Your task to perform on an android device: Add "dell xps" to the cart on bestbuy, then select checkout. Image 0: 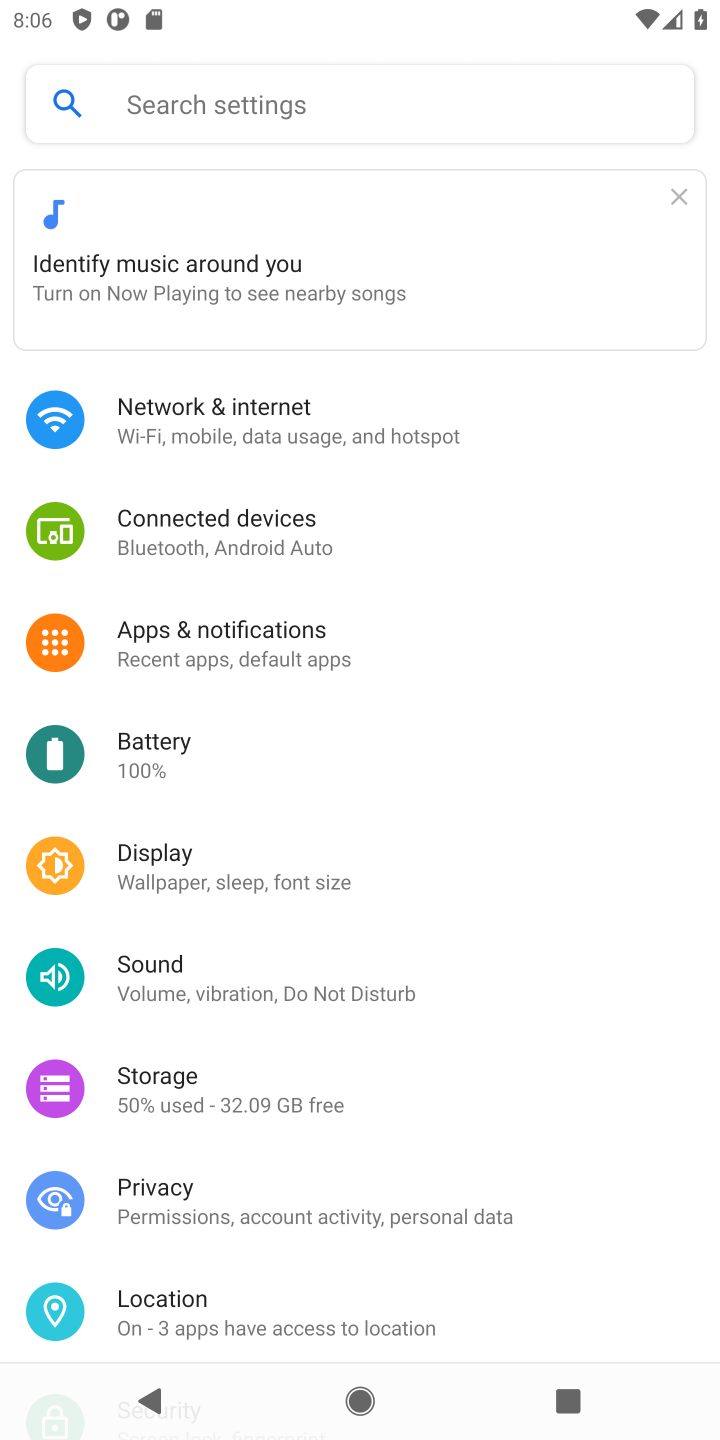
Step 0: press home button
Your task to perform on an android device: Add "dell xps" to the cart on bestbuy, then select checkout. Image 1: 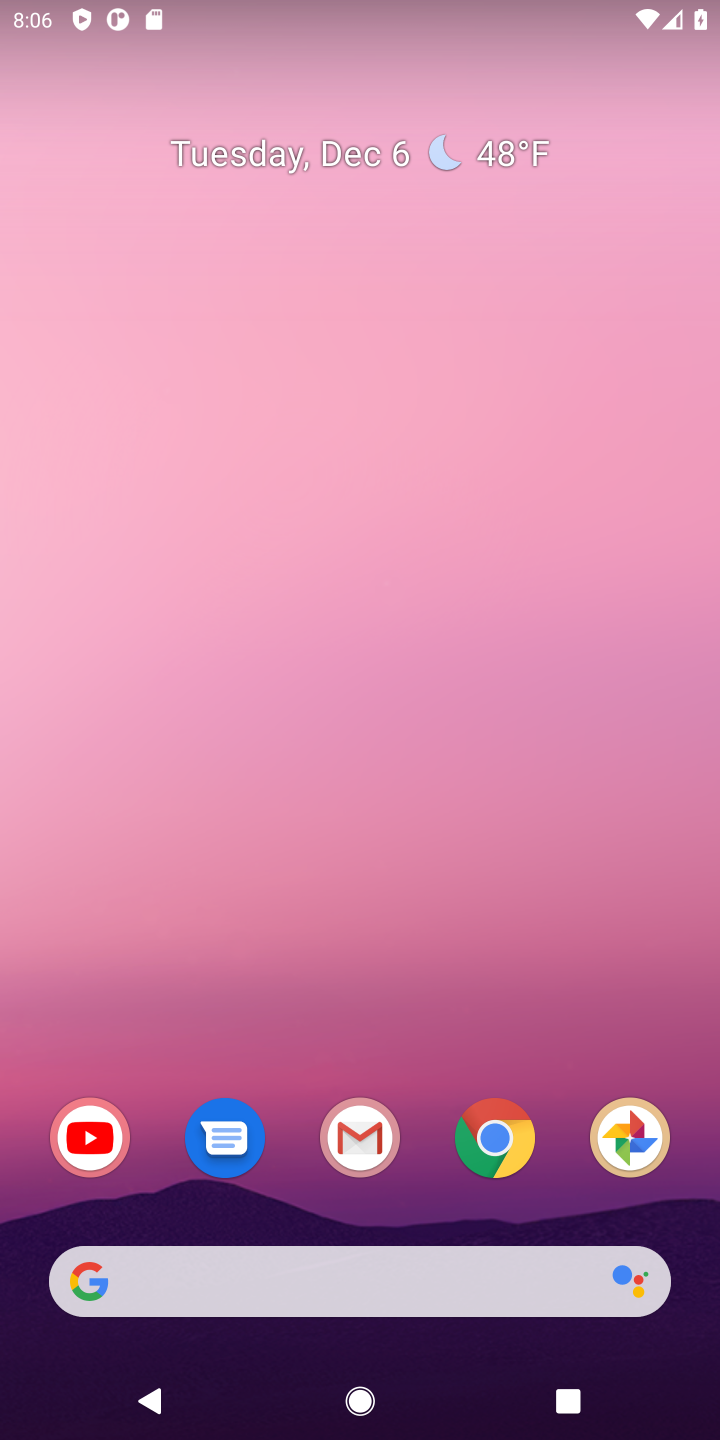
Step 1: click (485, 1149)
Your task to perform on an android device: Add "dell xps" to the cart on bestbuy, then select checkout. Image 2: 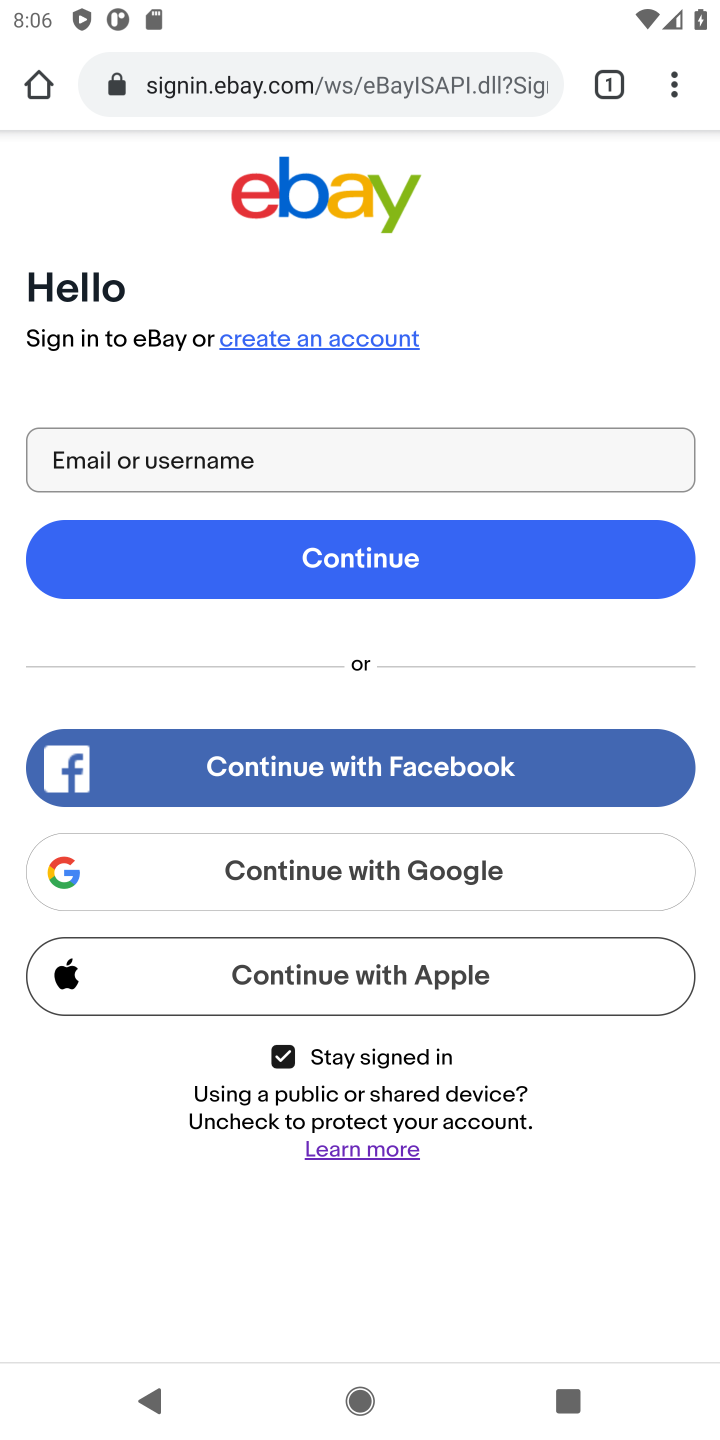
Step 2: click (280, 83)
Your task to perform on an android device: Add "dell xps" to the cart on bestbuy, then select checkout. Image 3: 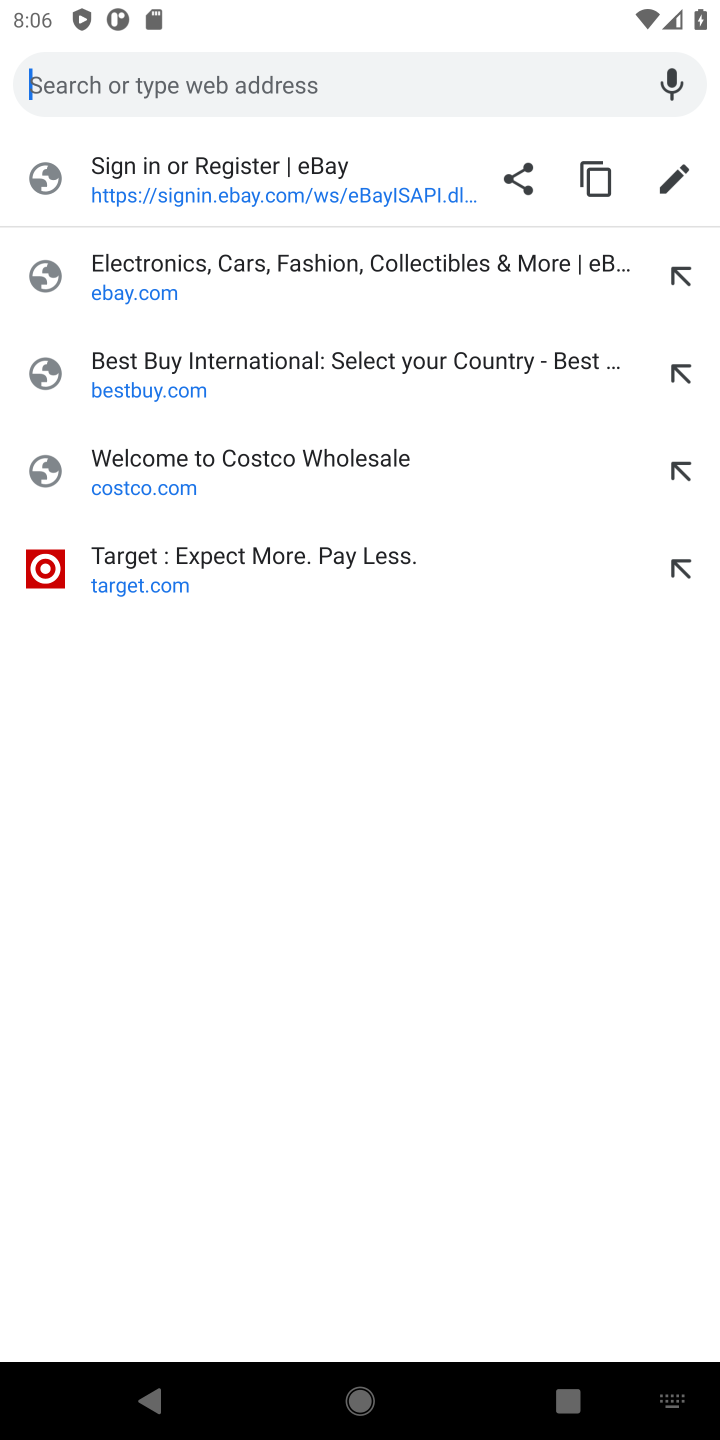
Step 3: click (110, 363)
Your task to perform on an android device: Add "dell xps" to the cart on bestbuy, then select checkout. Image 4: 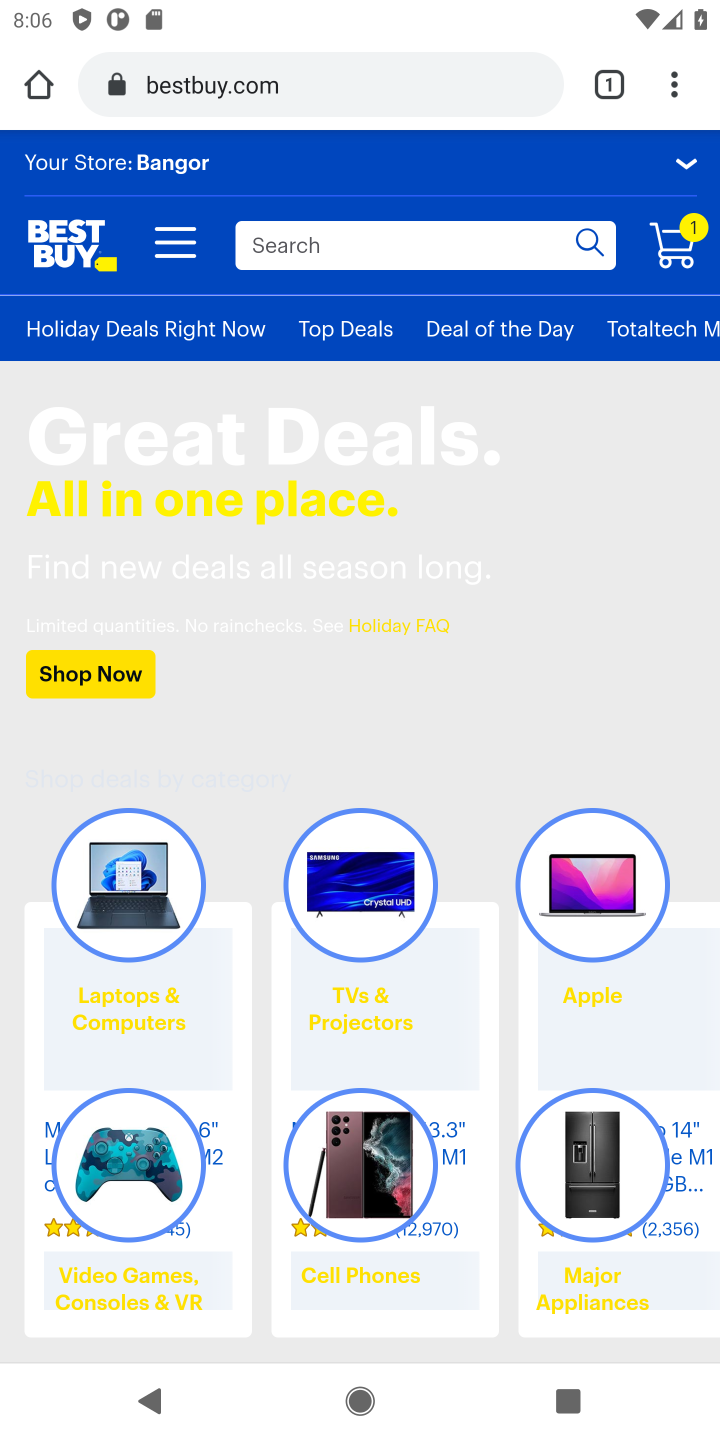
Step 4: click (305, 252)
Your task to perform on an android device: Add "dell xps" to the cart on bestbuy, then select checkout. Image 5: 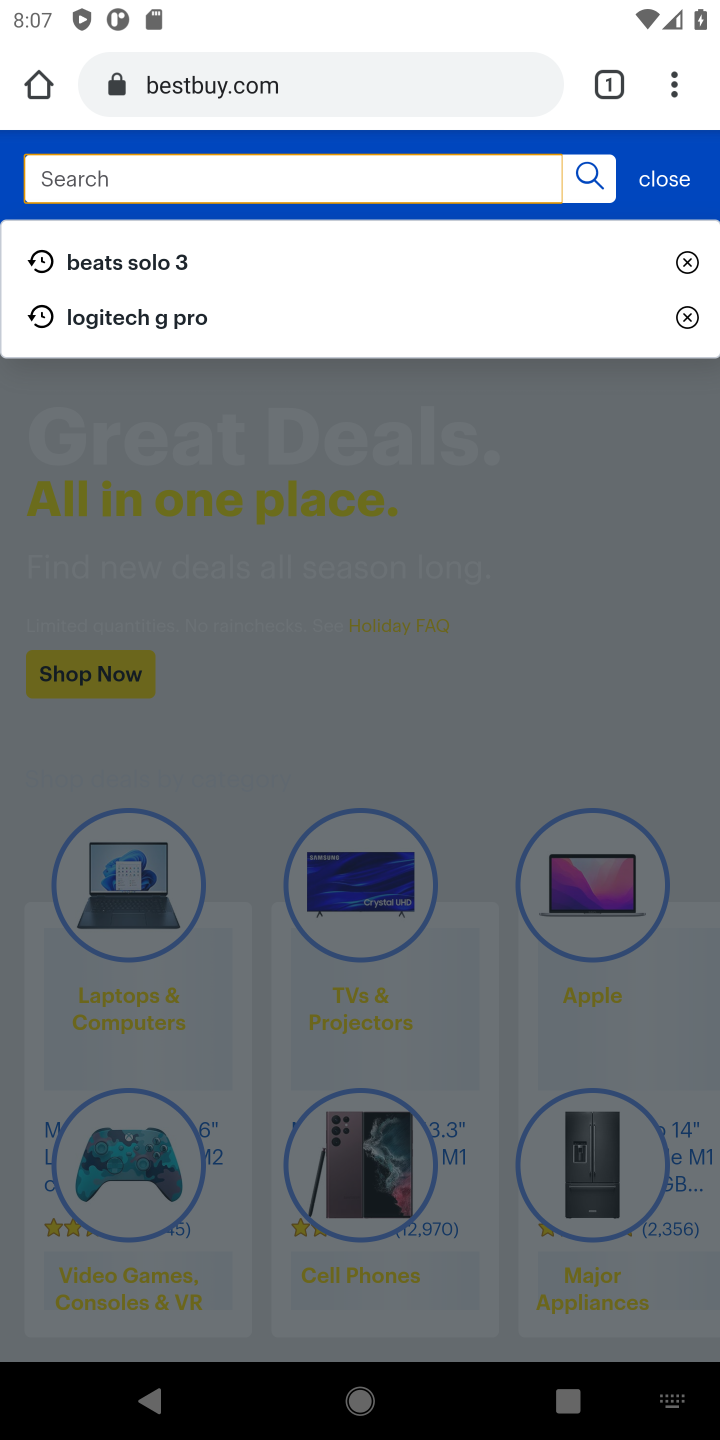
Step 5: type "dell xps"
Your task to perform on an android device: Add "dell xps" to the cart on bestbuy, then select checkout. Image 6: 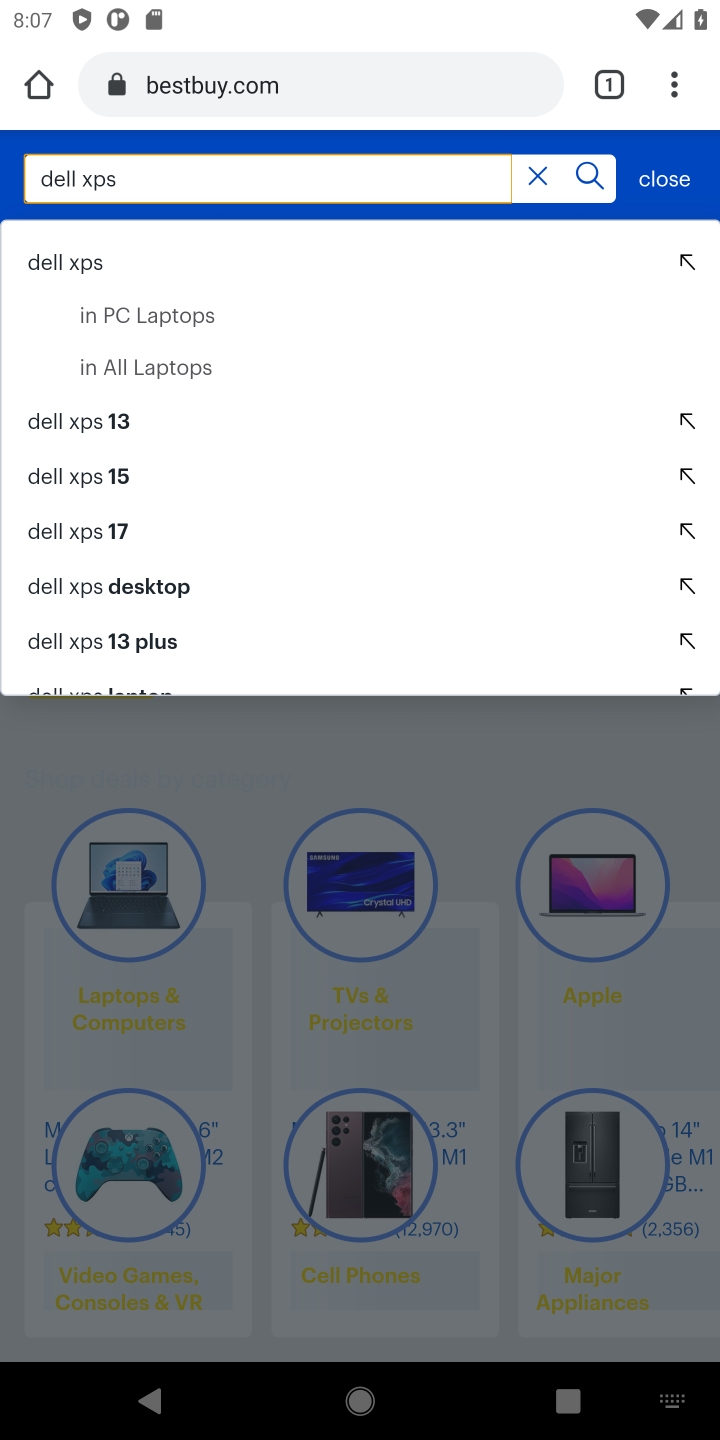
Step 6: click (60, 262)
Your task to perform on an android device: Add "dell xps" to the cart on bestbuy, then select checkout. Image 7: 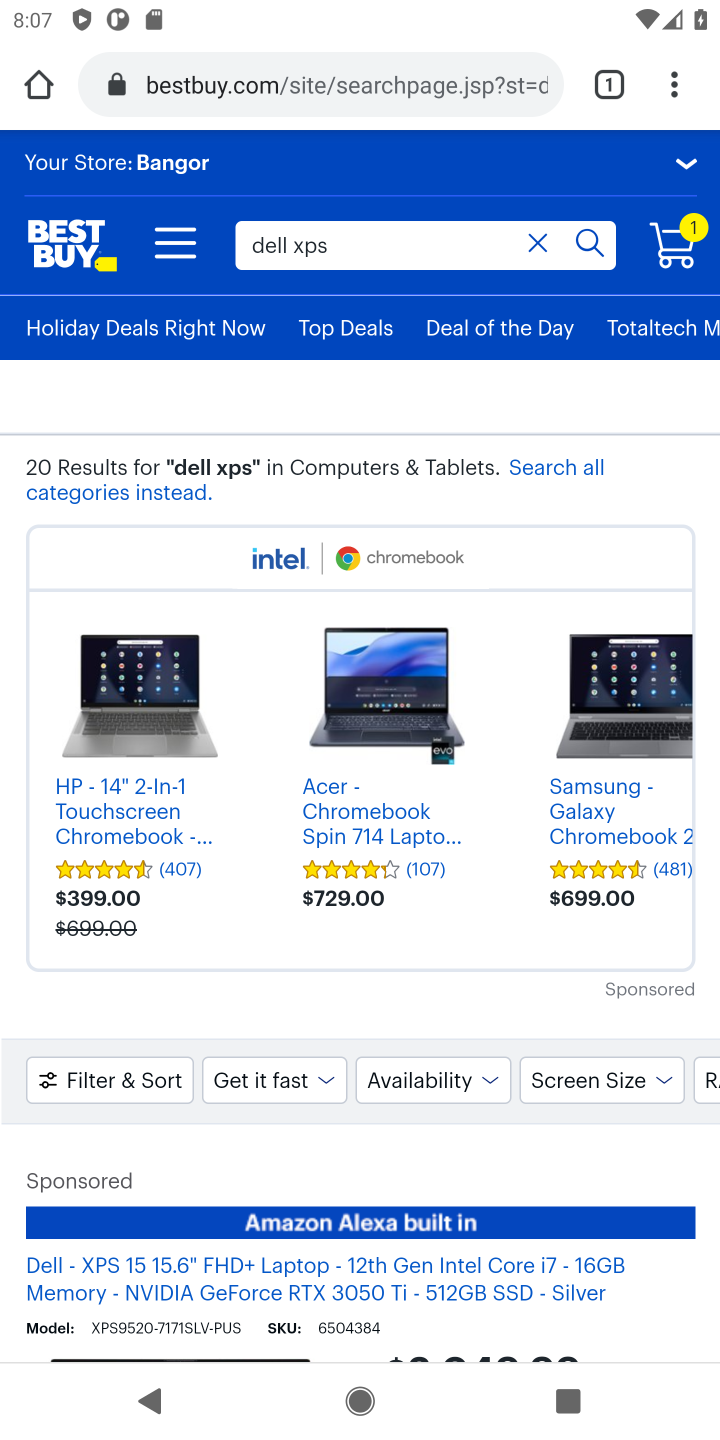
Step 7: drag from (322, 982) to (254, 391)
Your task to perform on an android device: Add "dell xps" to the cart on bestbuy, then select checkout. Image 8: 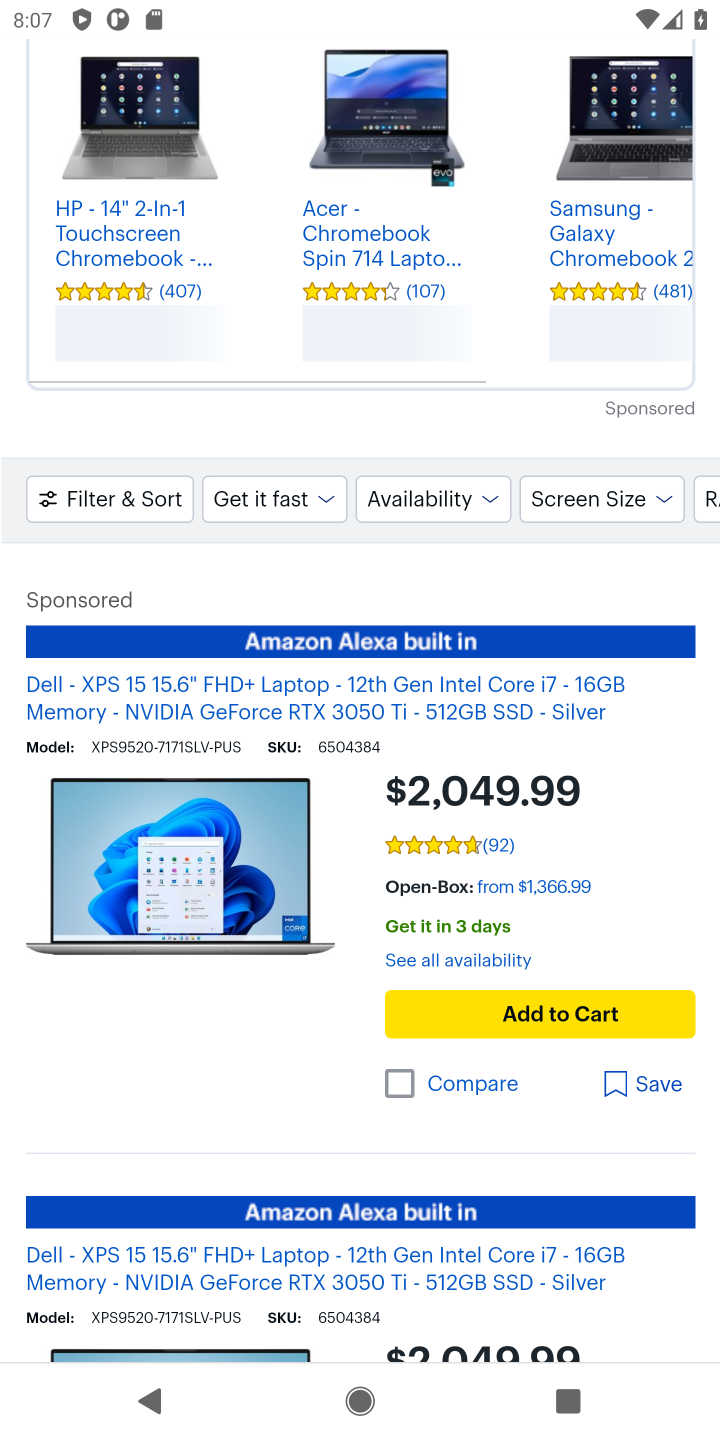
Step 8: click (544, 1012)
Your task to perform on an android device: Add "dell xps" to the cart on bestbuy, then select checkout. Image 9: 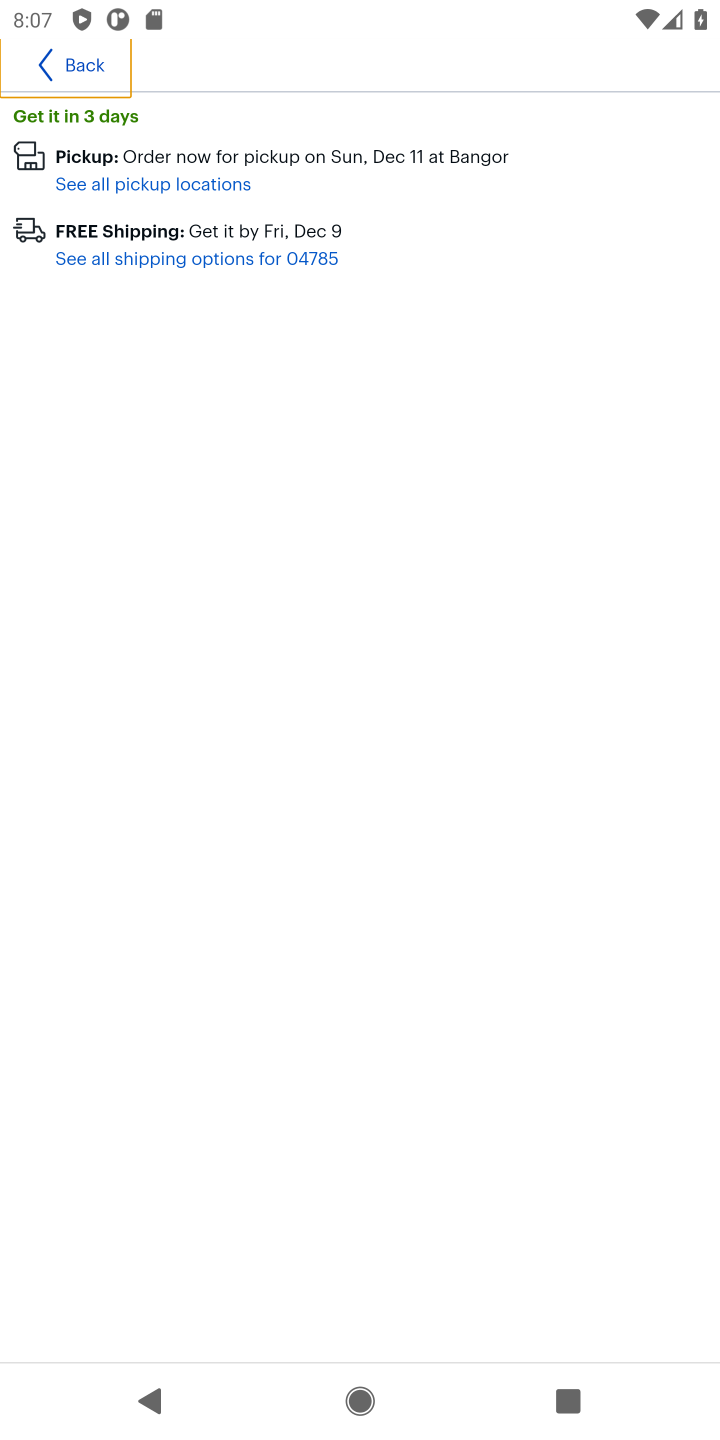
Step 9: click (60, 65)
Your task to perform on an android device: Add "dell xps" to the cart on bestbuy, then select checkout. Image 10: 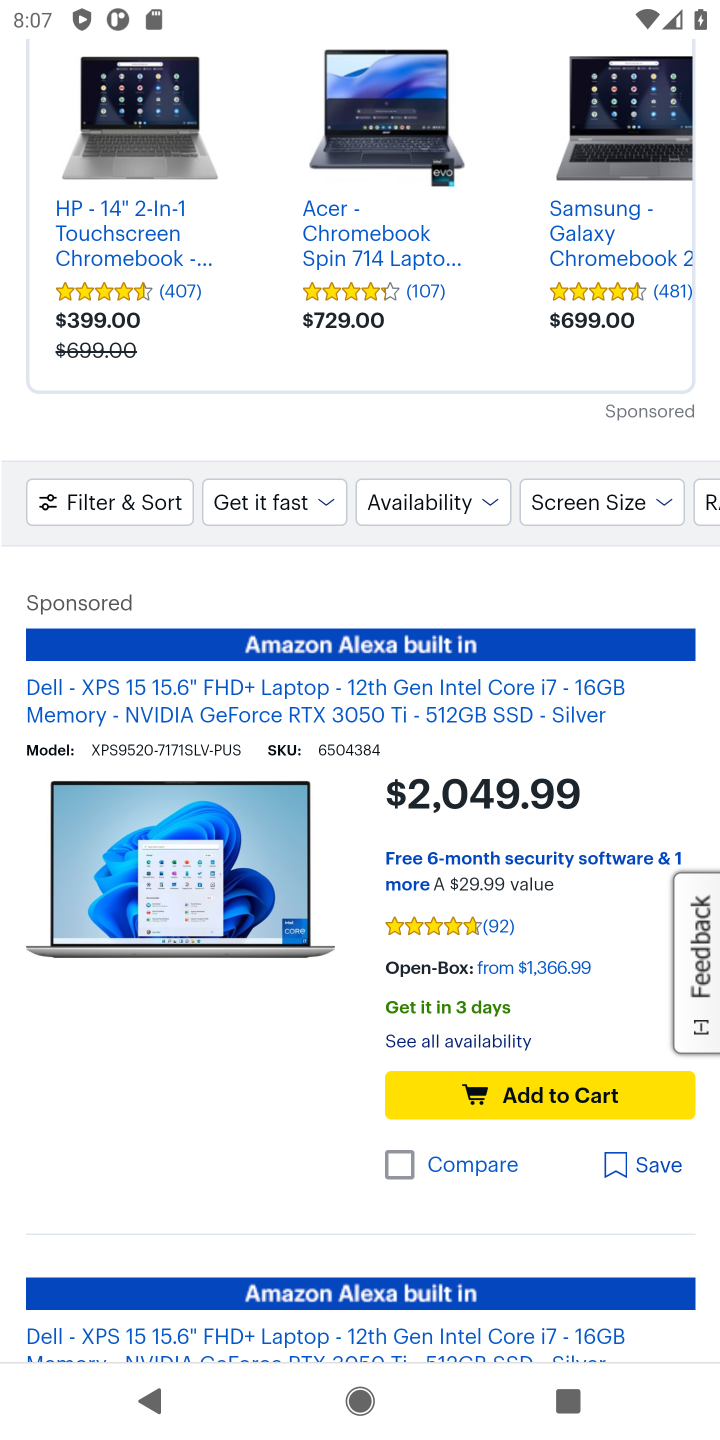
Step 10: click (499, 1104)
Your task to perform on an android device: Add "dell xps" to the cart on bestbuy, then select checkout. Image 11: 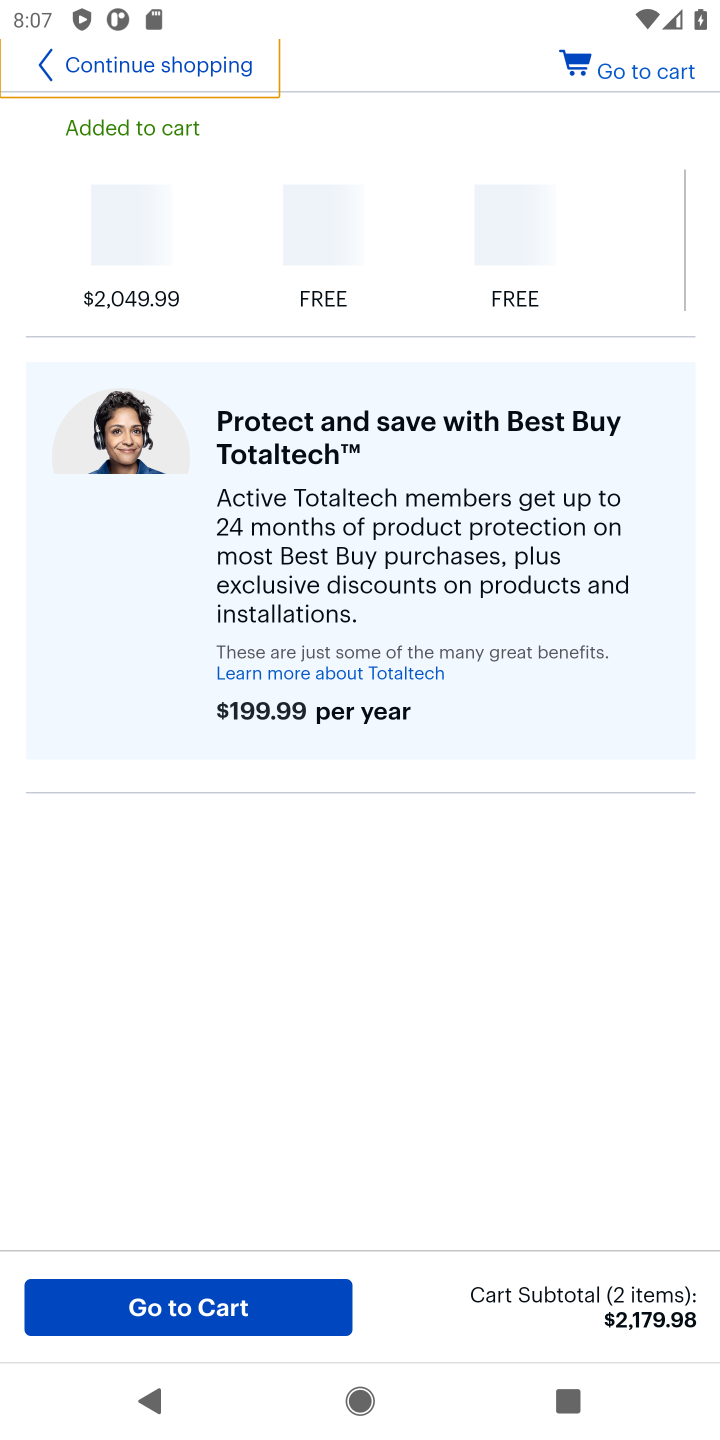
Step 11: click (624, 78)
Your task to perform on an android device: Add "dell xps" to the cart on bestbuy, then select checkout. Image 12: 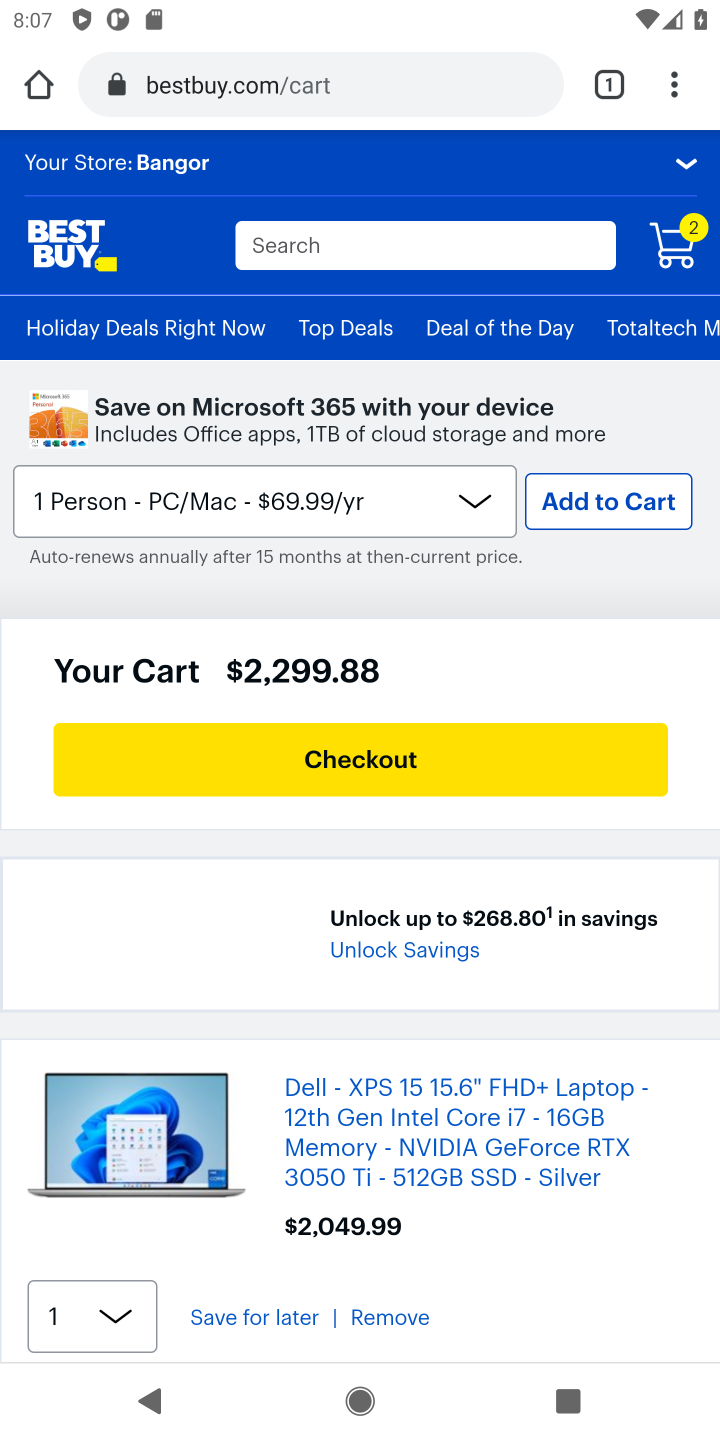
Step 12: click (340, 760)
Your task to perform on an android device: Add "dell xps" to the cart on bestbuy, then select checkout. Image 13: 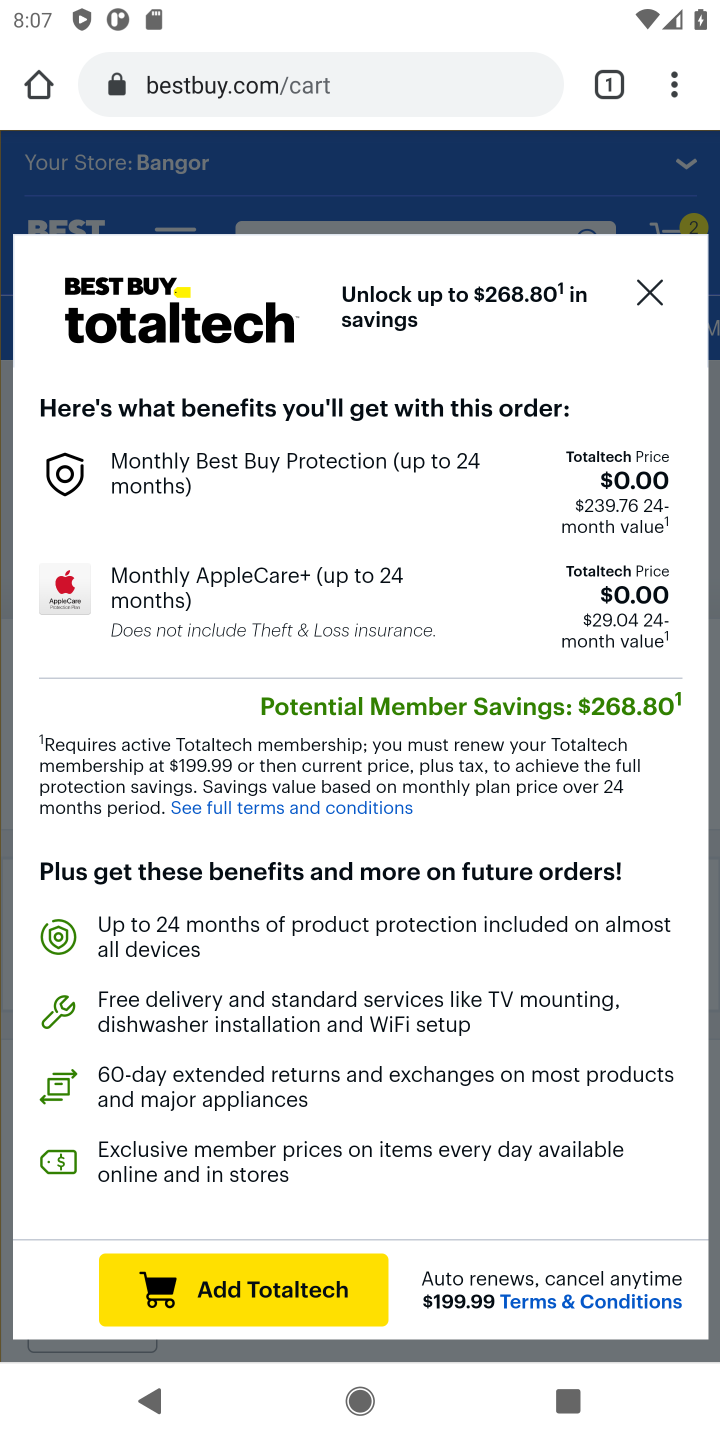
Step 13: click (656, 285)
Your task to perform on an android device: Add "dell xps" to the cart on bestbuy, then select checkout. Image 14: 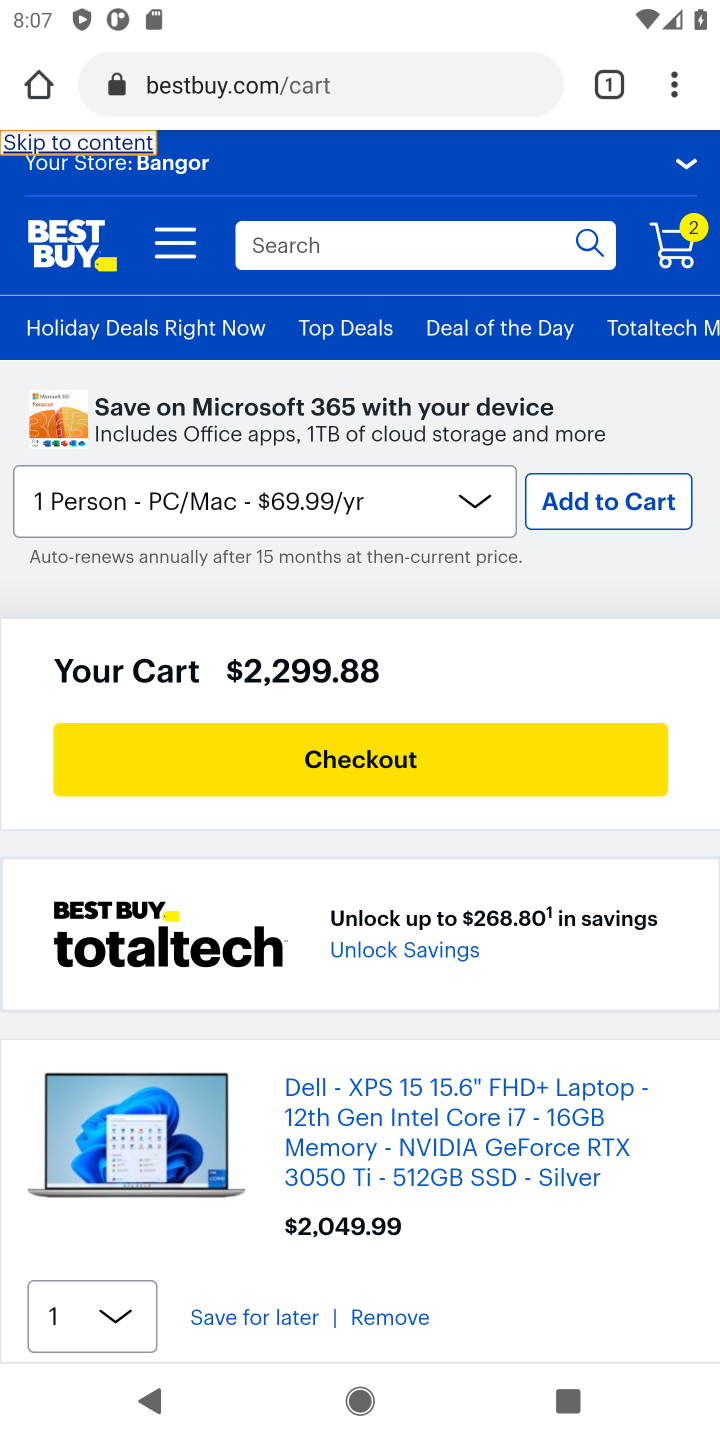
Step 14: click (343, 748)
Your task to perform on an android device: Add "dell xps" to the cart on bestbuy, then select checkout. Image 15: 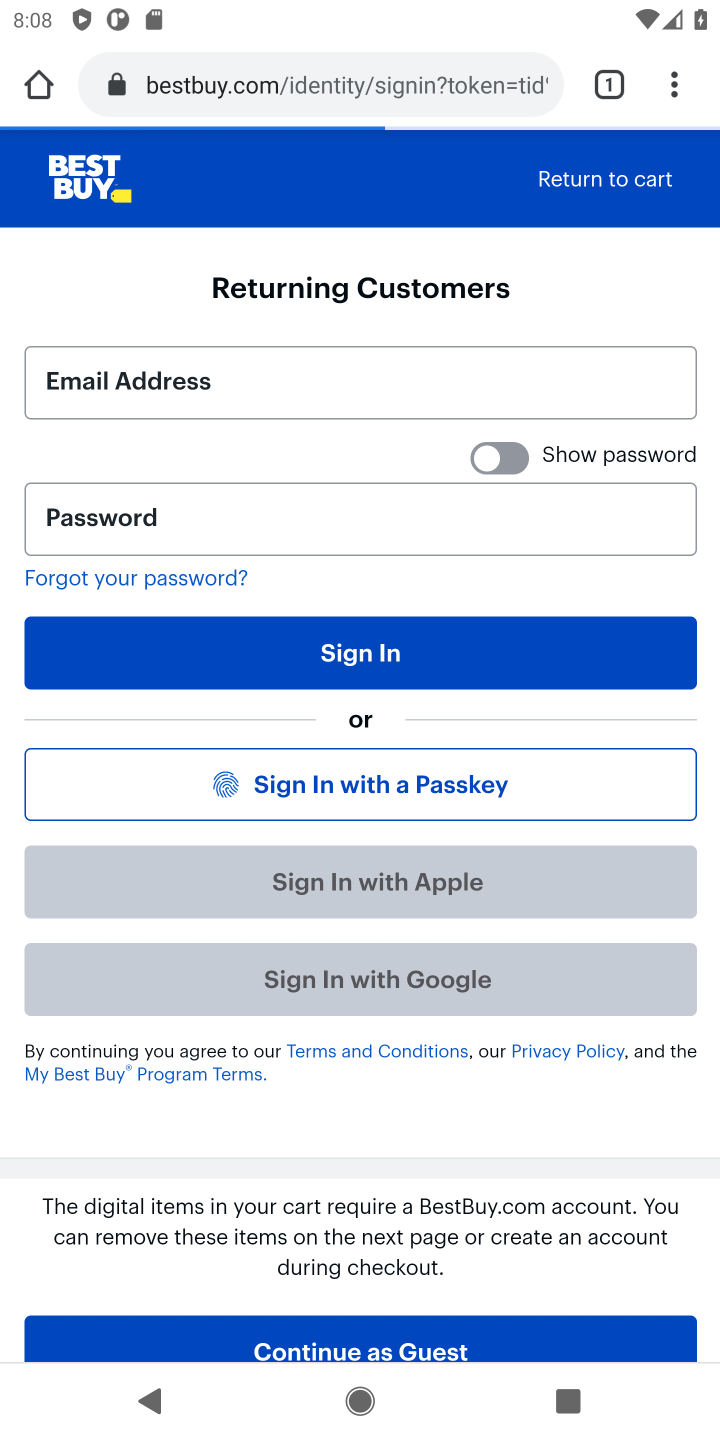
Step 15: task complete